Your task to perform on an android device: Add "beats solo 3" to the cart on bestbuy, then select checkout. Image 0: 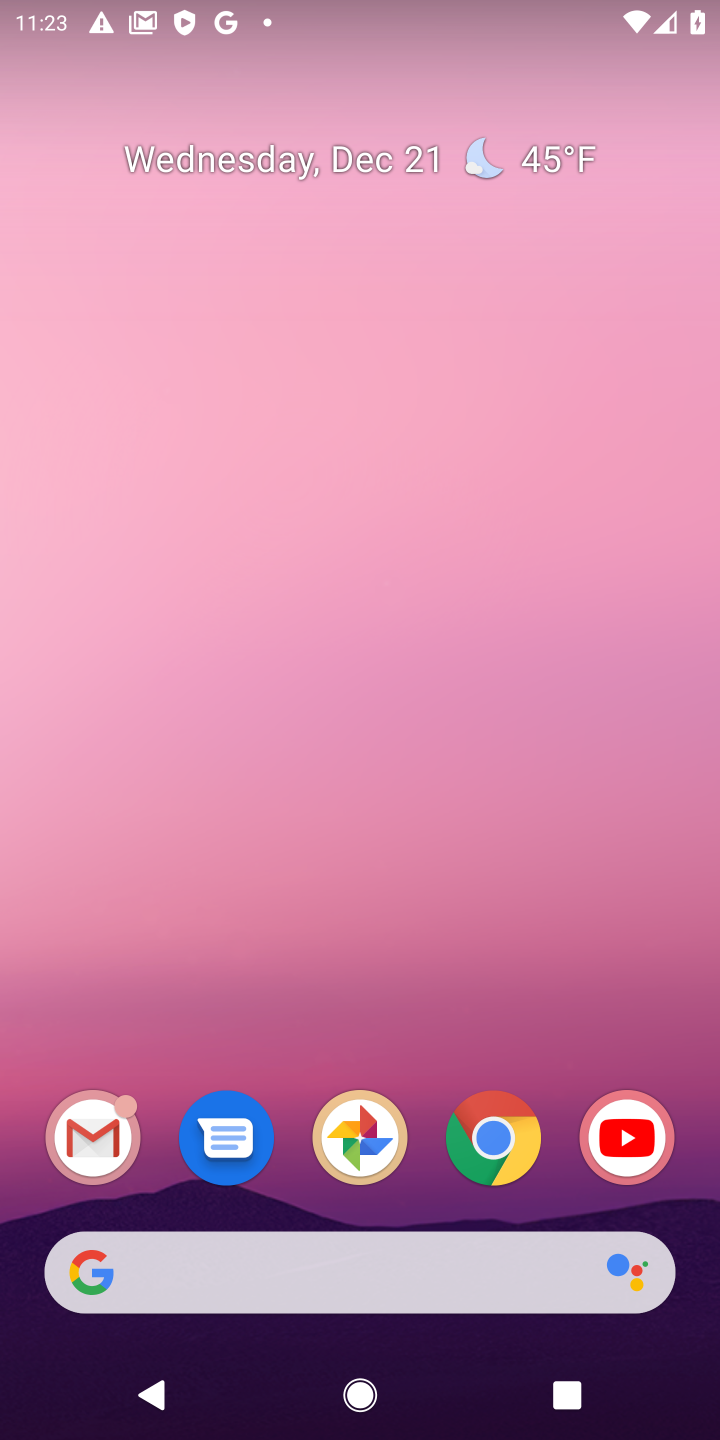
Step 0: click (495, 1153)
Your task to perform on an android device: Add "beats solo 3" to the cart on bestbuy, then select checkout. Image 1: 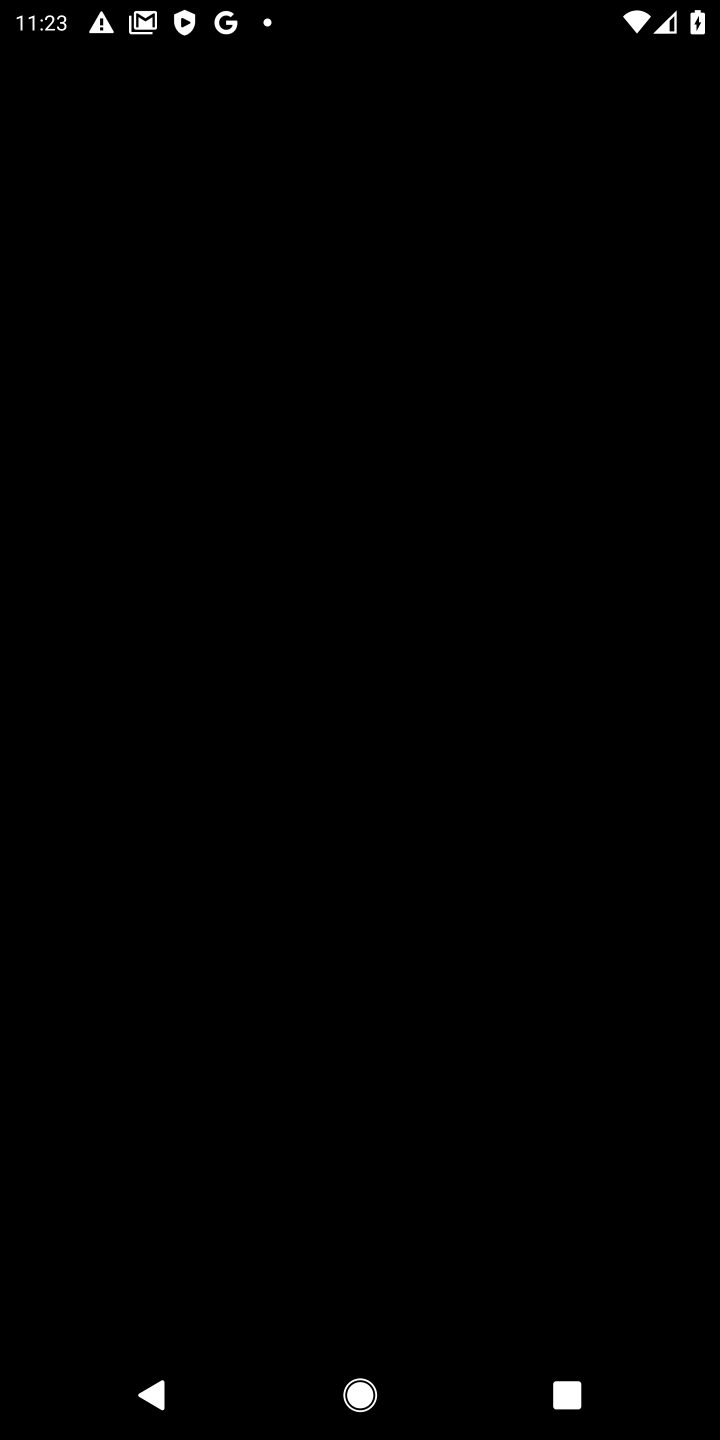
Step 1: press home button
Your task to perform on an android device: Add "beats solo 3" to the cart on bestbuy, then select checkout. Image 2: 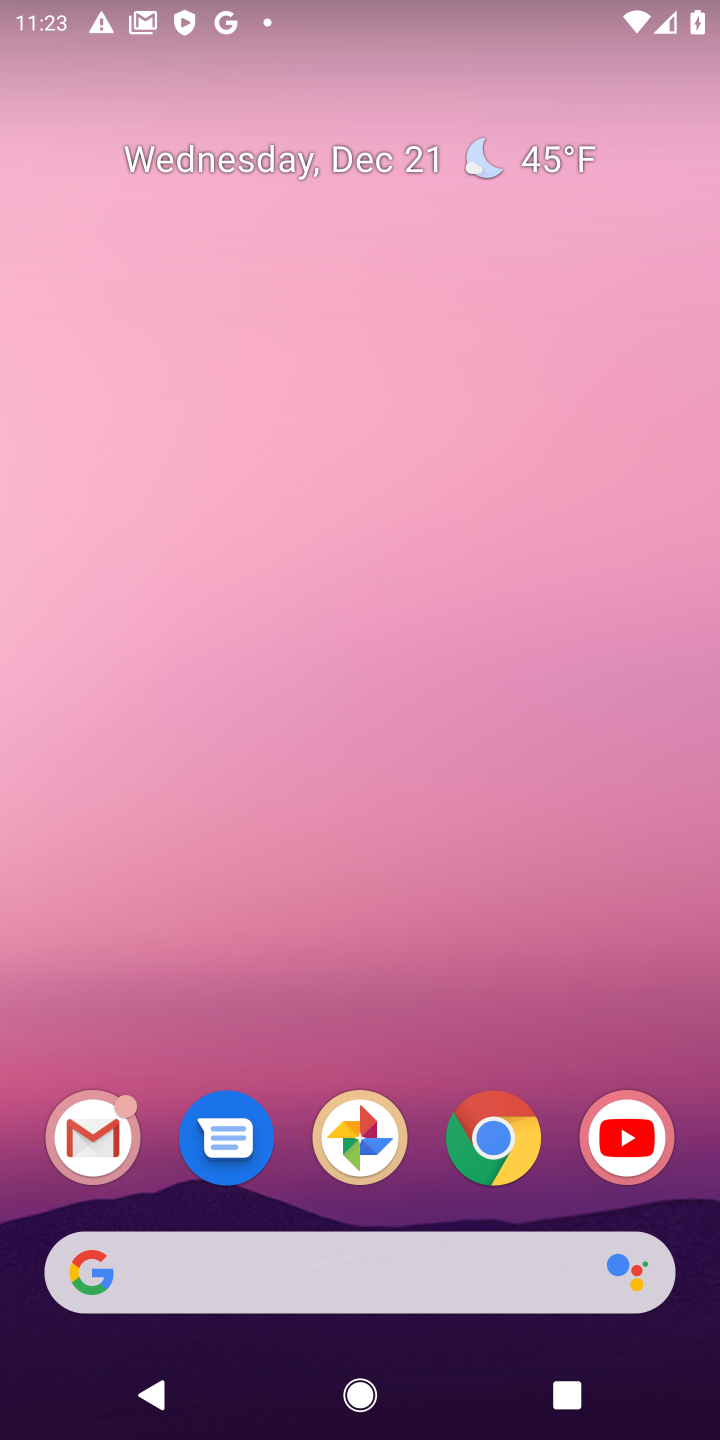
Step 2: click (498, 1142)
Your task to perform on an android device: Add "beats solo 3" to the cart on bestbuy, then select checkout. Image 3: 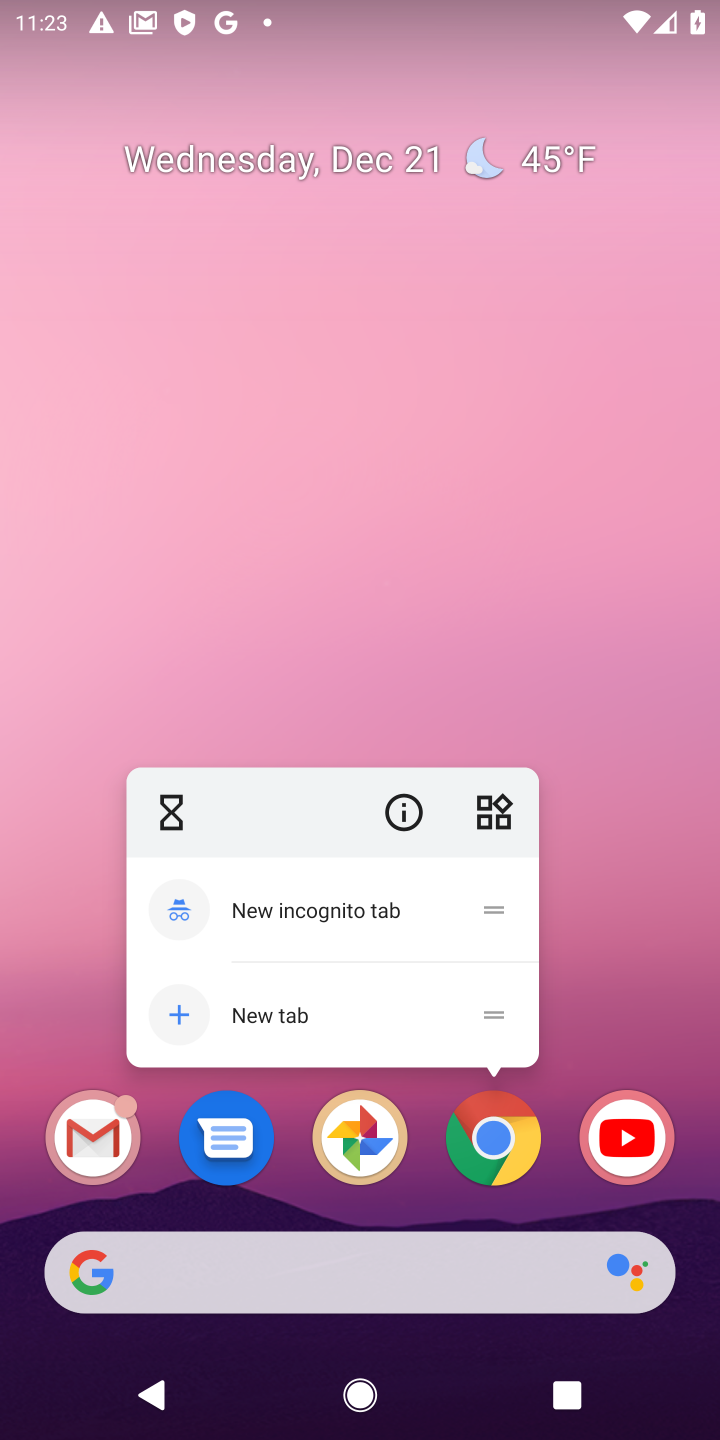
Step 3: click (498, 1142)
Your task to perform on an android device: Add "beats solo 3" to the cart on bestbuy, then select checkout. Image 4: 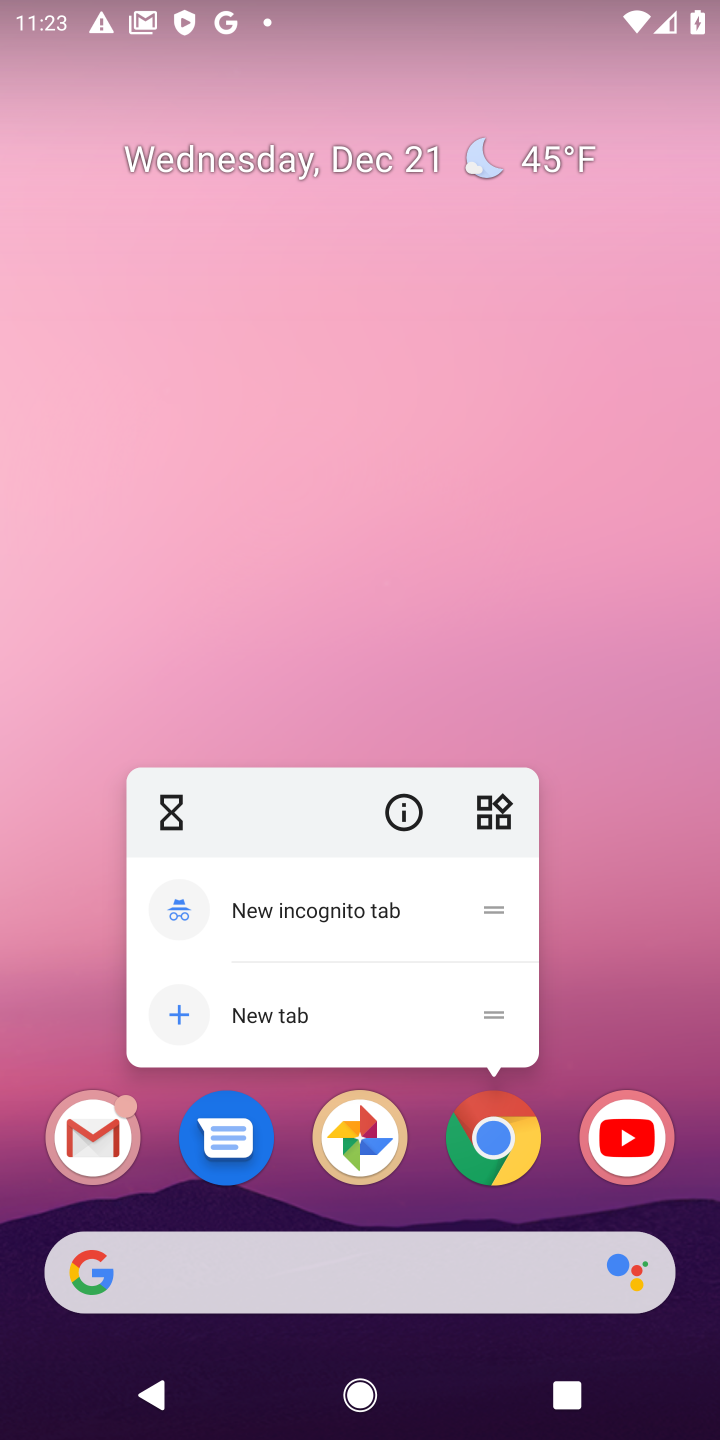
Step 4: click (498, 1142)
Your task to perform on an android device: Add "beats solo 3" to the cart on bestbuy, then select checkout. Image 5: 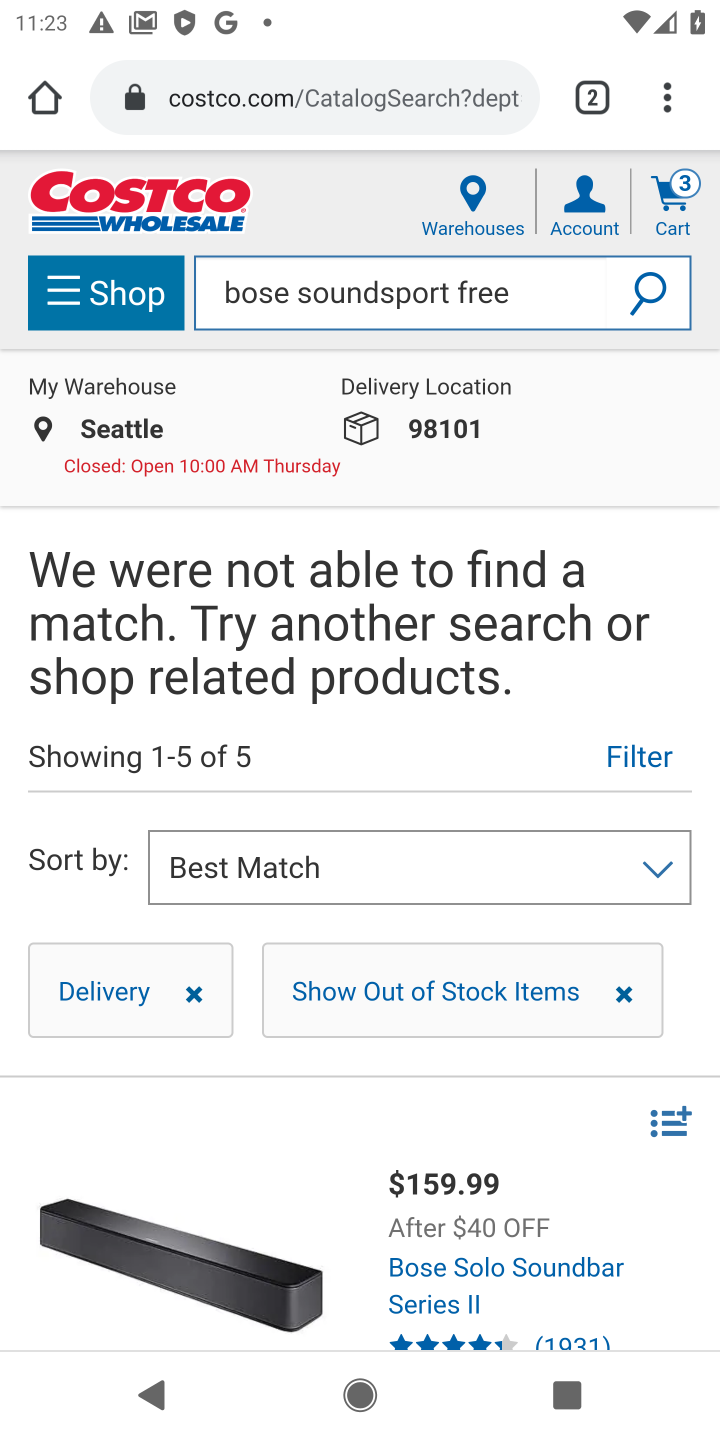
Step 5: click (302, 105)
Your task to perform on an android device: Add "beats solo 3" to the cart on bestbuy, then select checkout. Image 6: 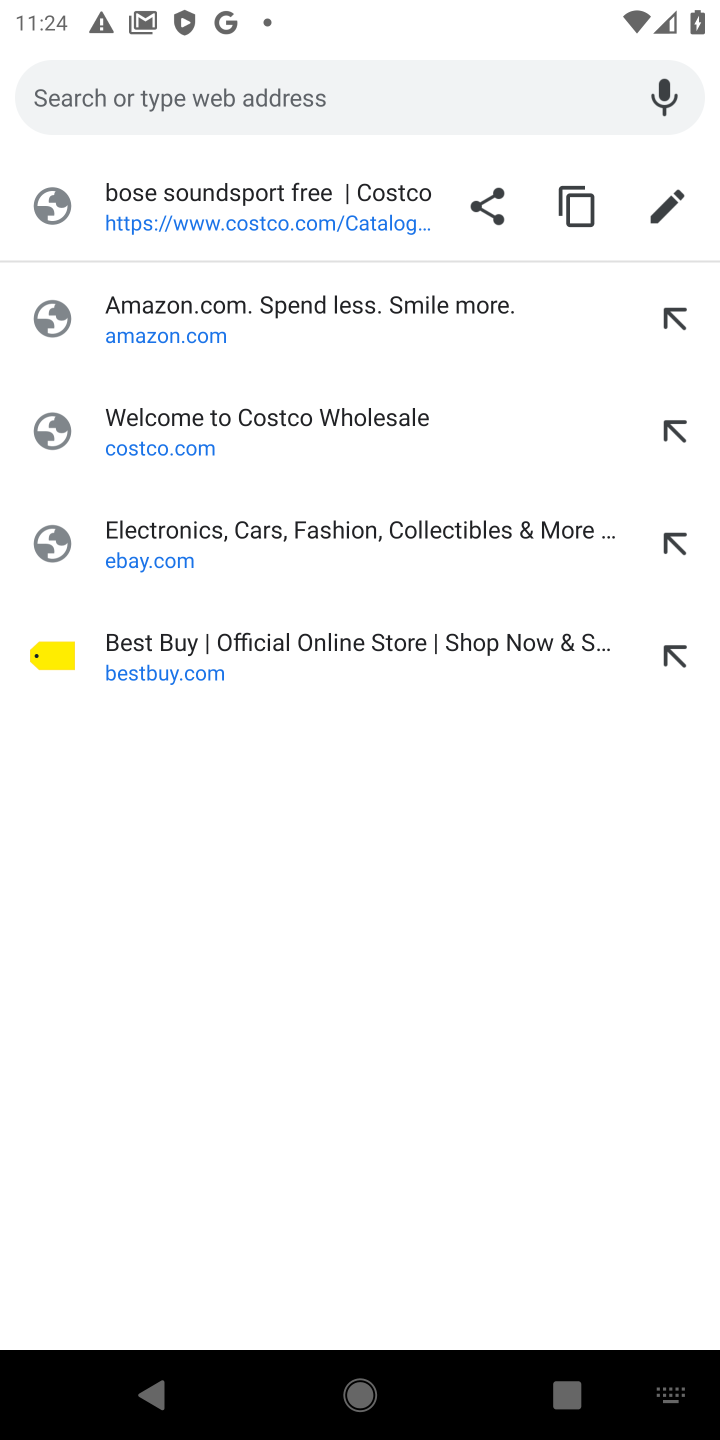
Step 6: click (153, 662)
Your task to perform on an android device: Add "beats solo 3" to the cart on bestbuy, then select checkout. Image 7: 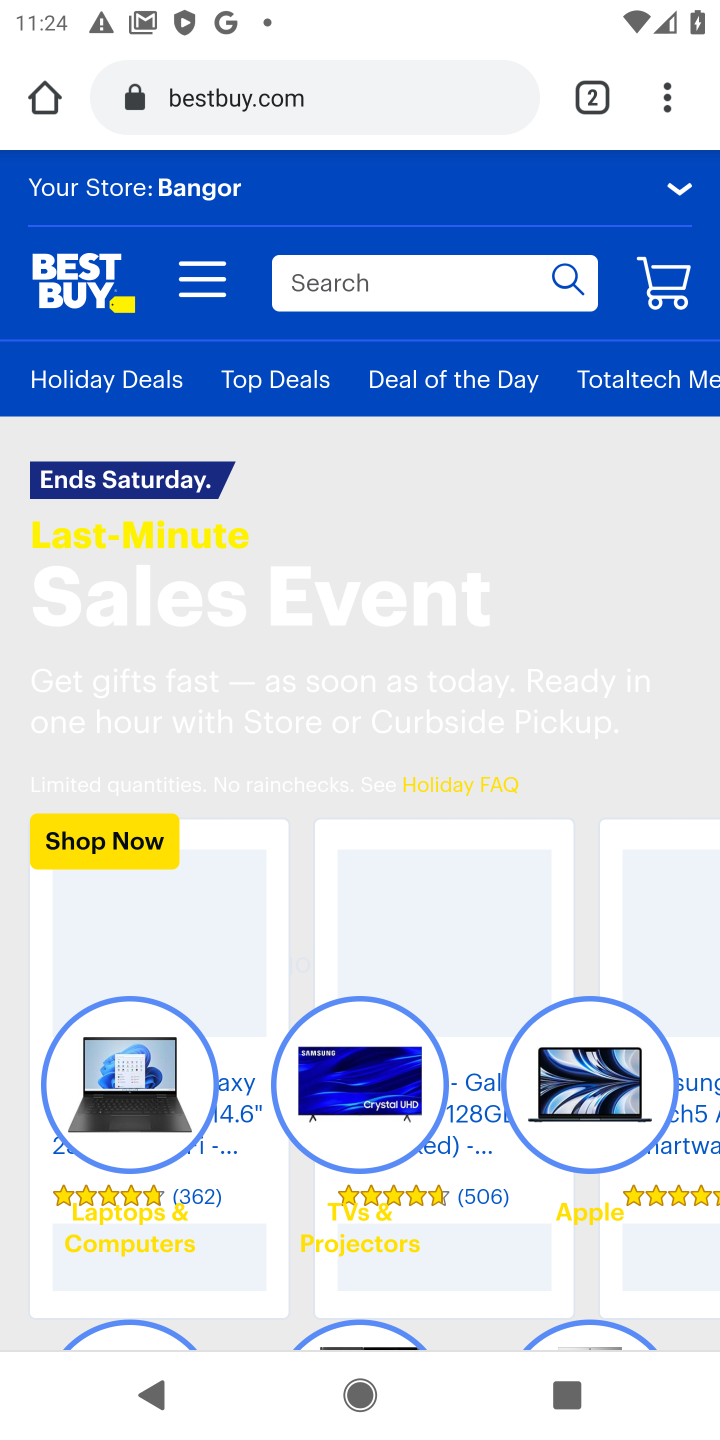
Step 7: click (354, 277)
Your task to perform on an android device: Add "beats solo 3" to the cart on bestbuy, then select checkout. Image 8: 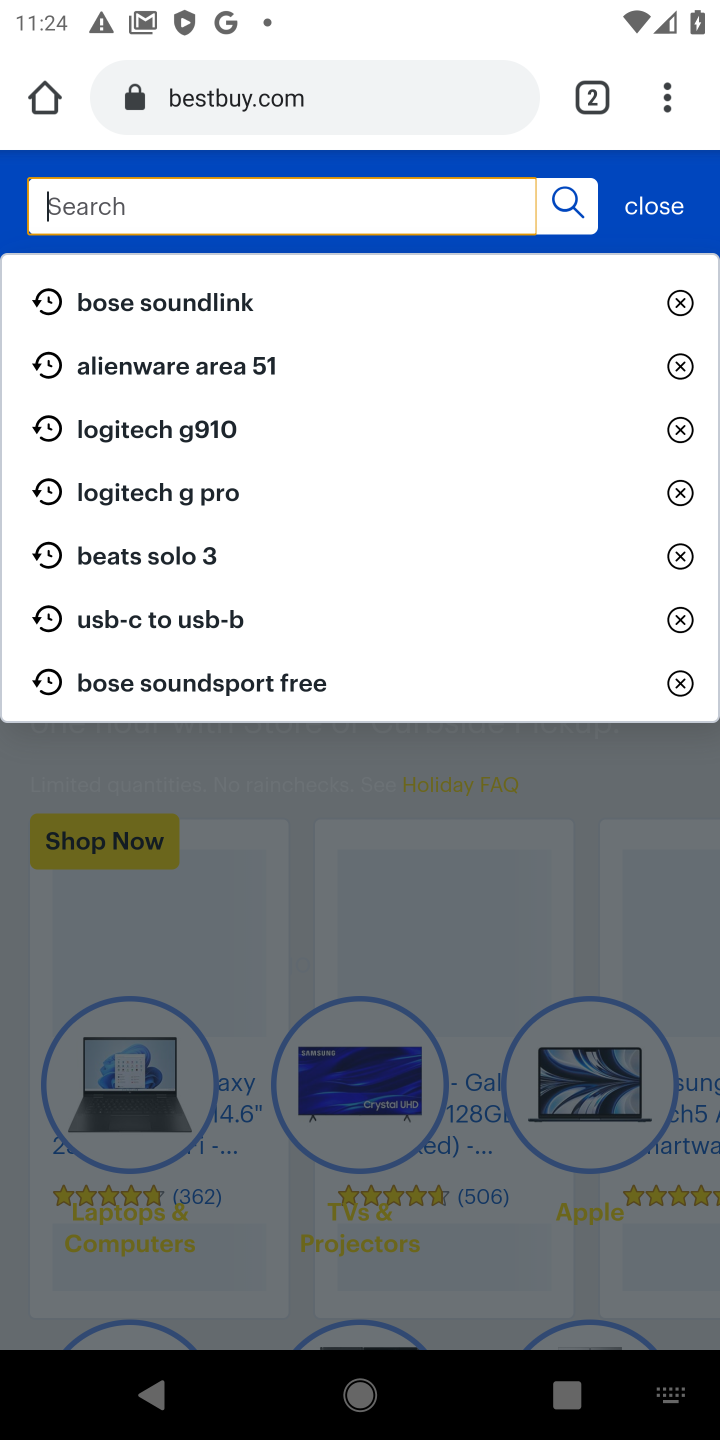
Step 8: type "beats solo 3"
Your task to perform on an android device: Add "beats solo 3" to the cart on bestbuy, then select checkout. Image 9: 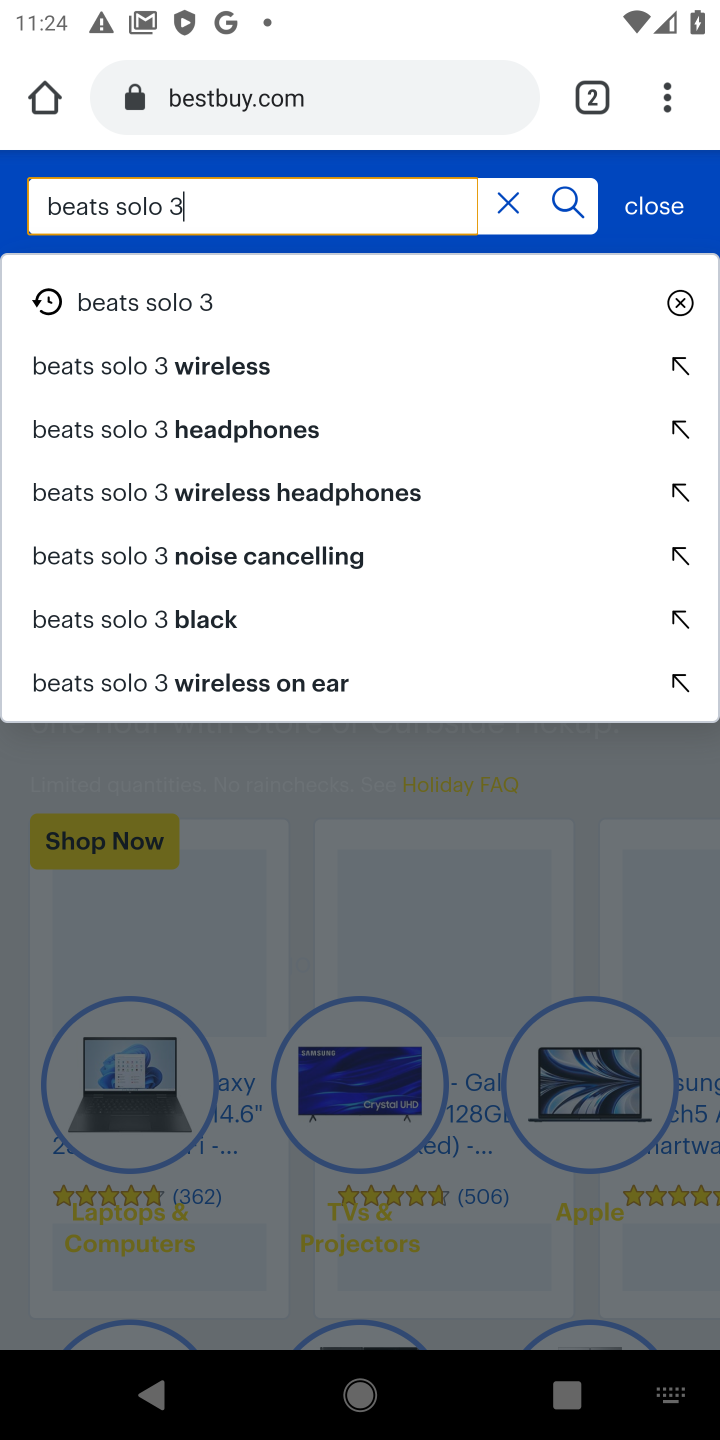
Step 9: click (163, 299)
Your task to perform on an android device: Add "beats solo 3" to the cart on bestbuy, then select checkout. Image 10: 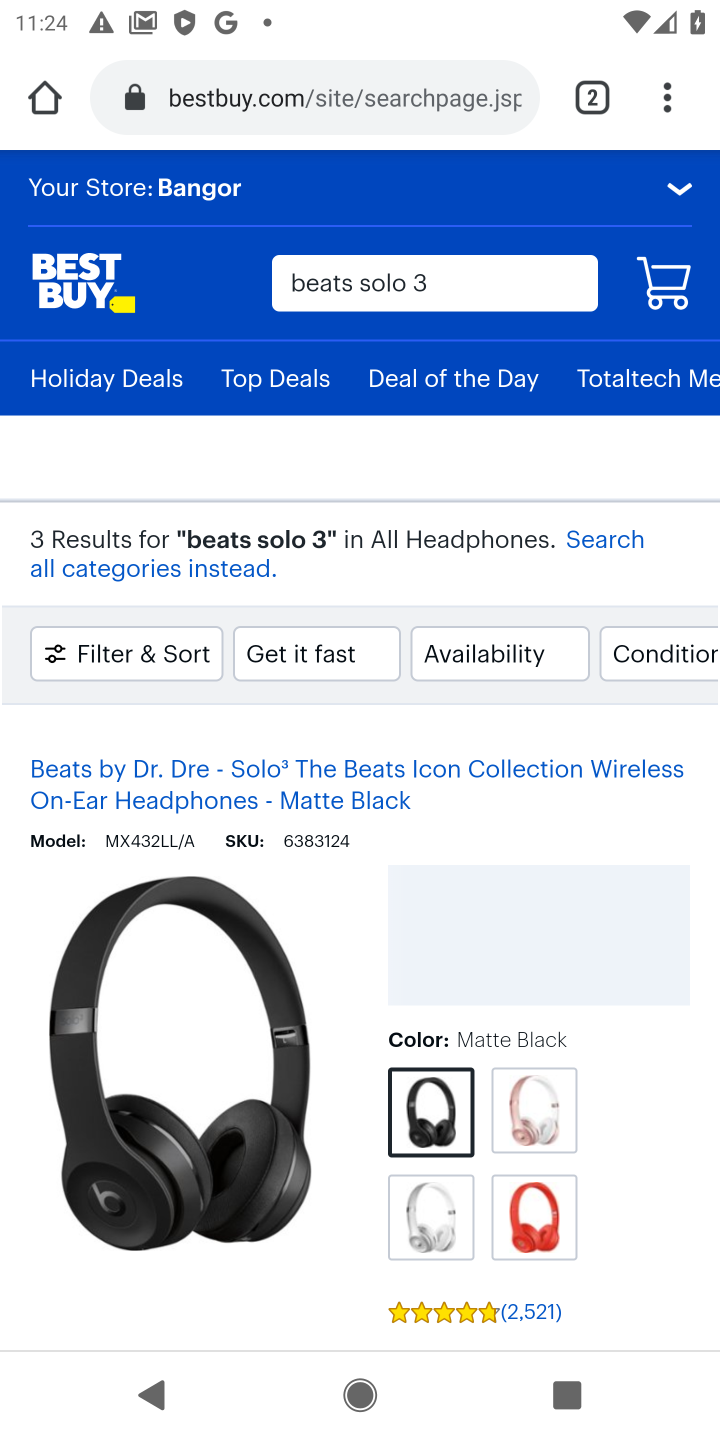
Step 10: drag from (198, 958) to (210, 619)
Your task to perform on an android device: Add "beats solo 3" to the cart on bestbuy, then select checkout. Image 11: 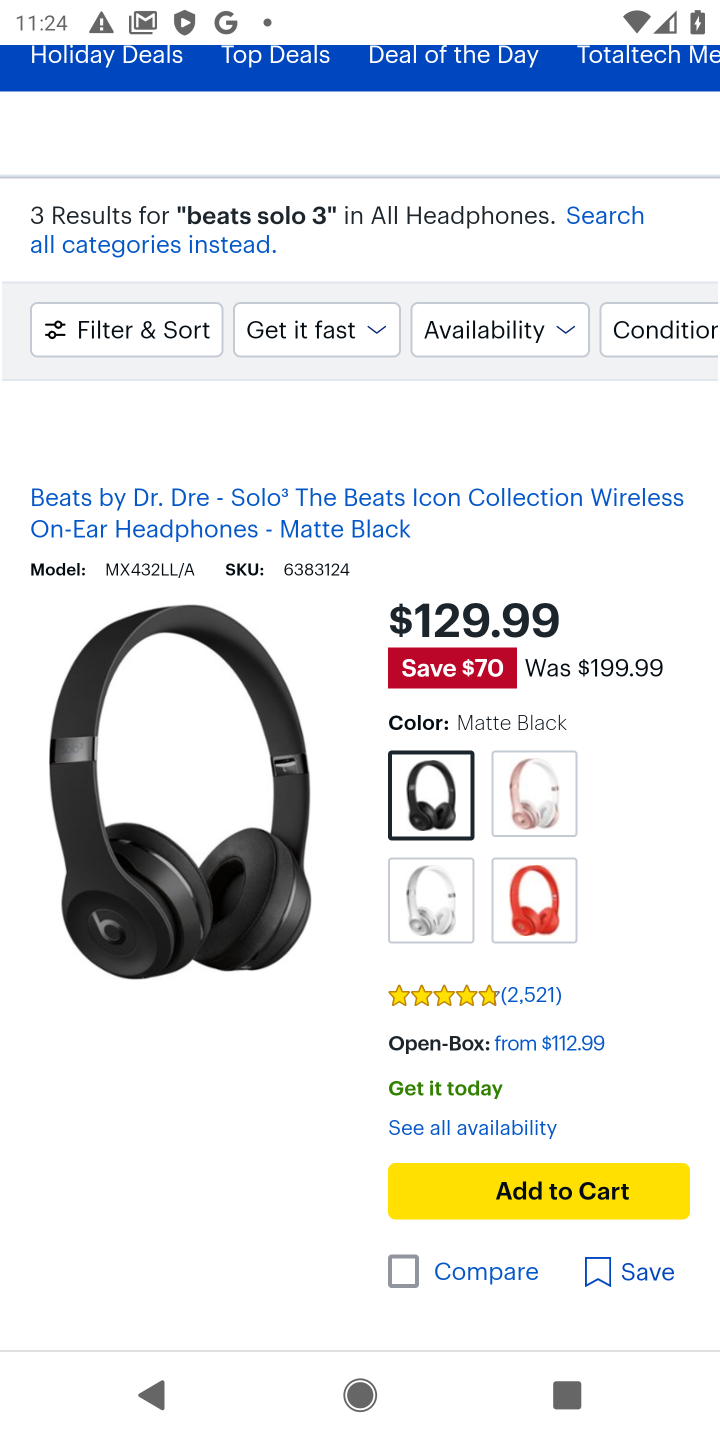
Step 11: click (505, 1187)
Your task to perform on an android device: Add "beats solo 3" to the cart on bestbuy, then select checkout. Image 12: 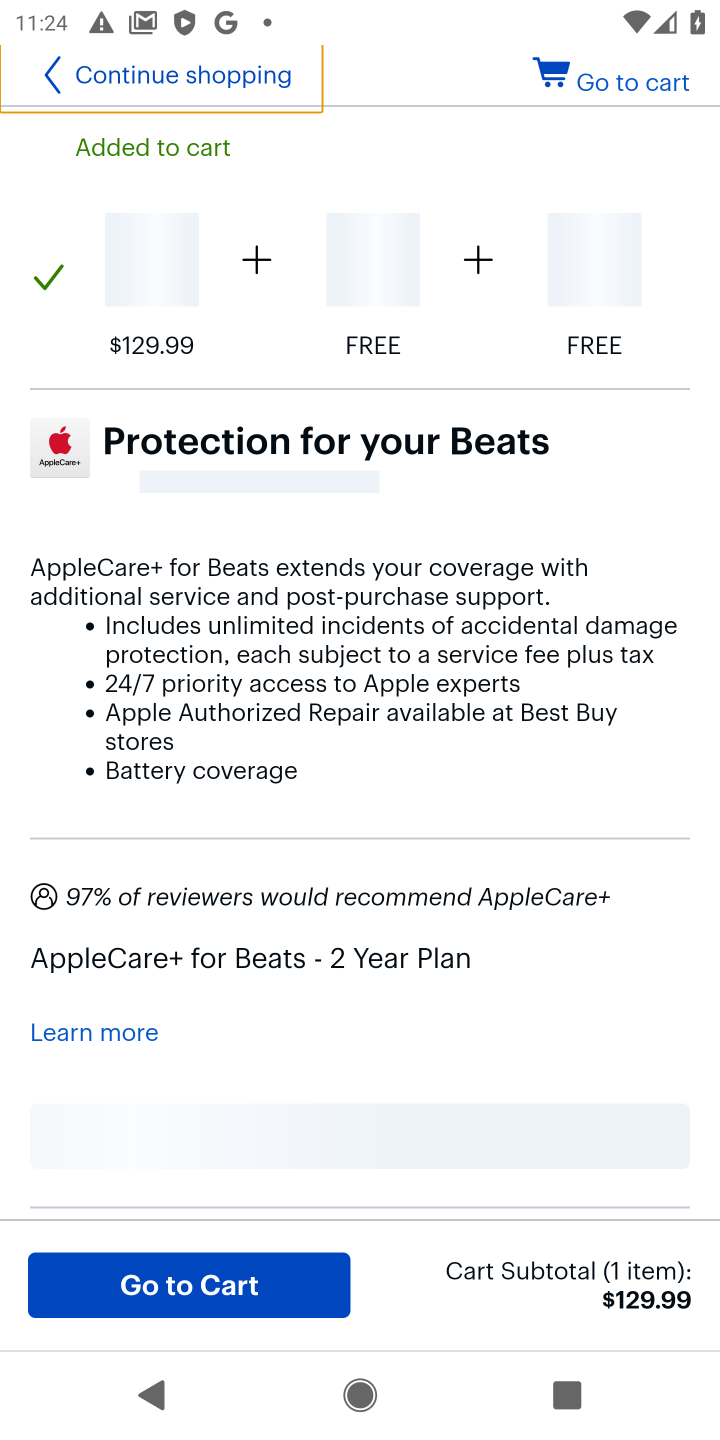
Step 12: click (630, 89)
Your task to perform on an android device: Add "beats solo 3" to the cart on bestbuy, then select checkout. Image 13: 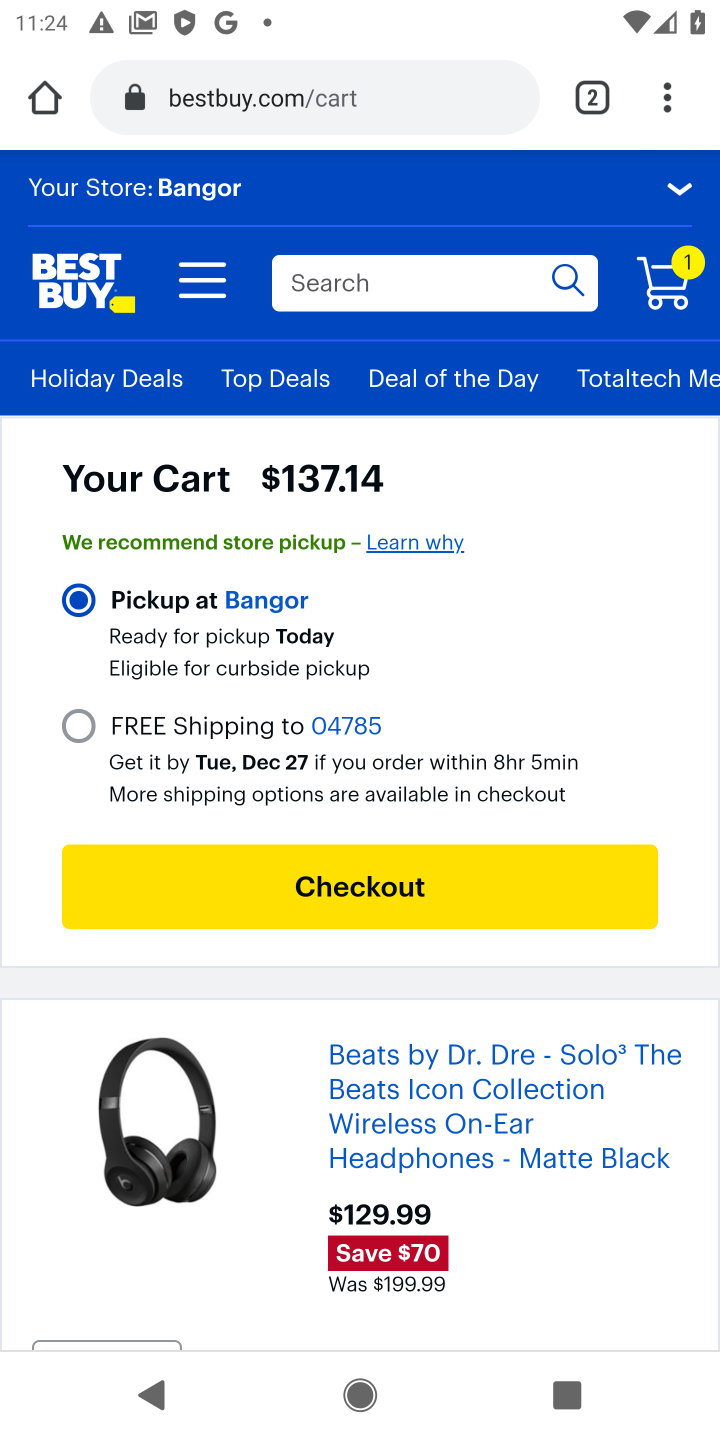
Step 13: click (357, 890)
Your task to perform on an android device: Add "beats solo 3" to the cart on bestbuy, then select checkout. Image 14: 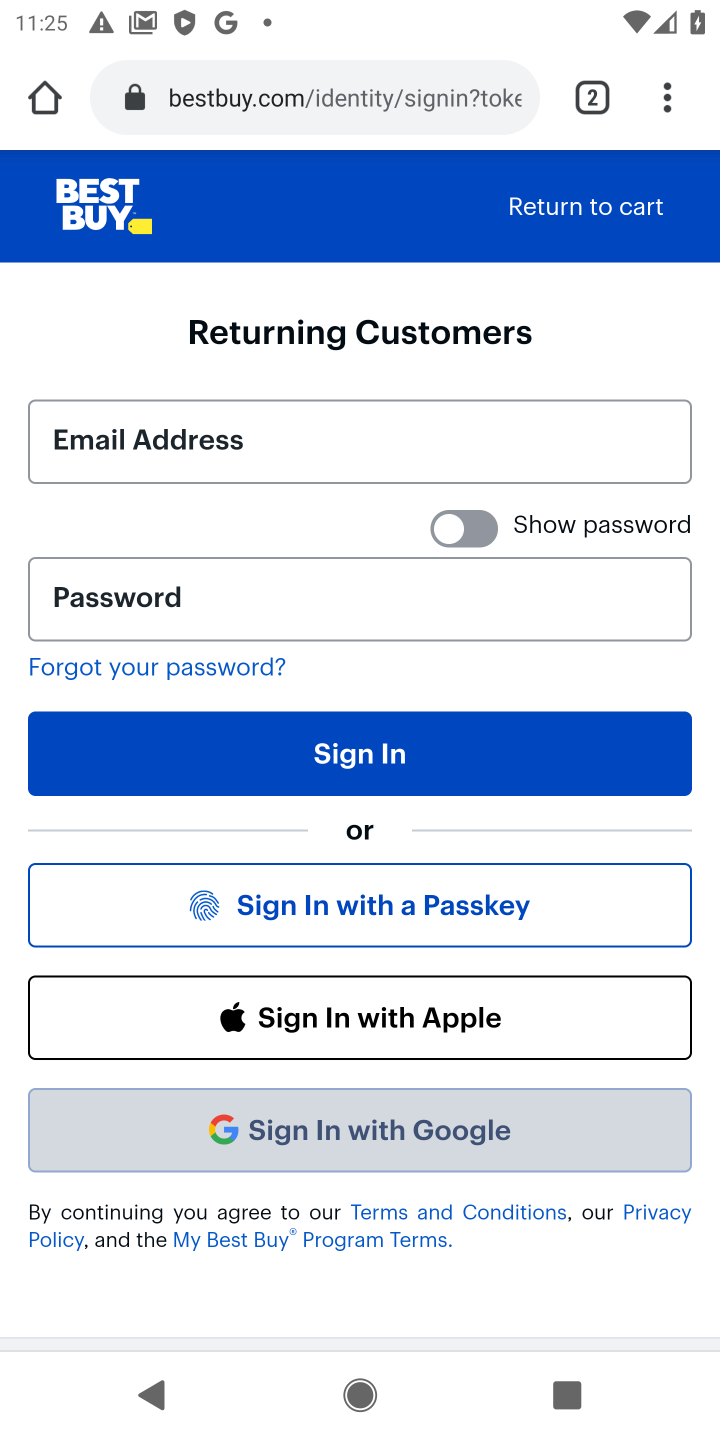
Step 14: task complete